Your task to perform on an android device: uninstall "Microsoft Excel" Image 0: 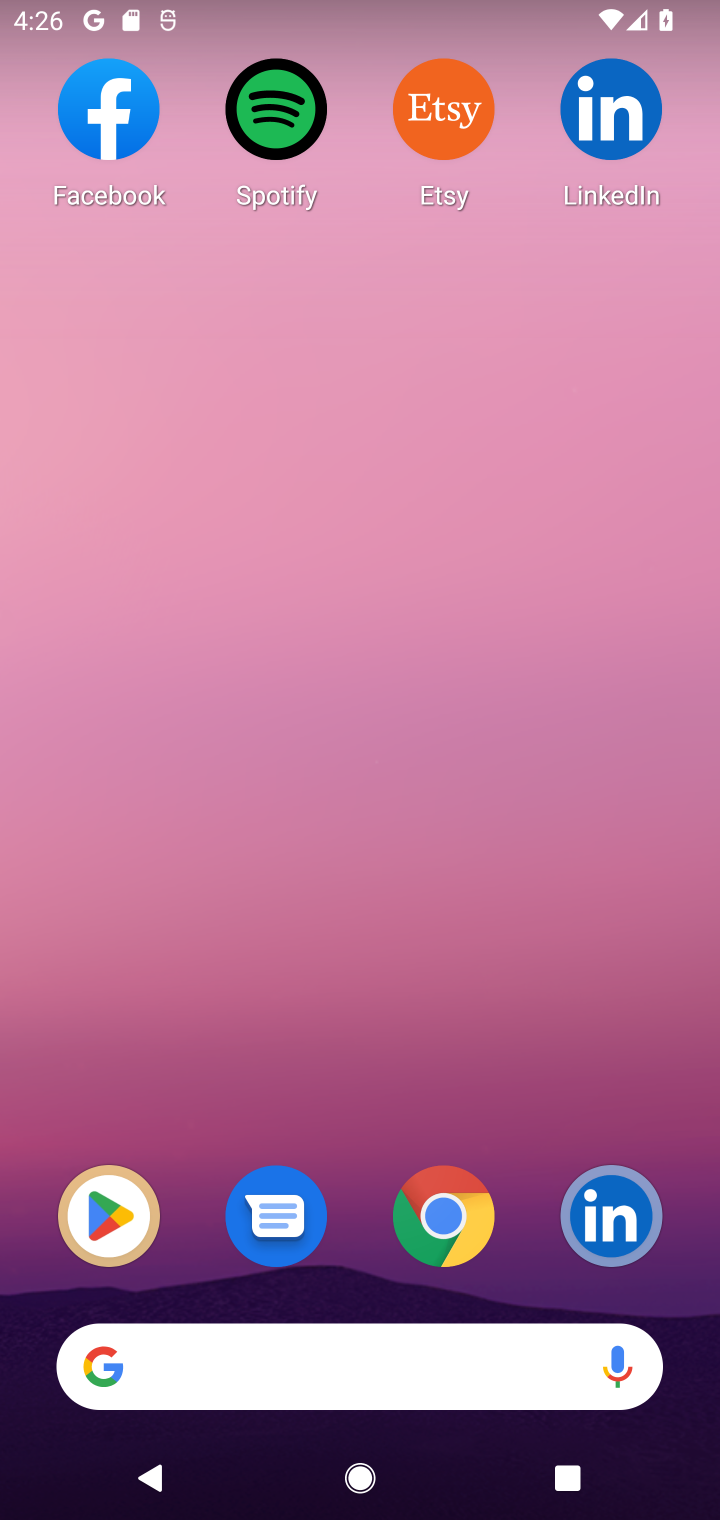
Step 0: click (125, 1211)
Your task to perform on an android device: uninstall "Microsoft Excel" Image 1: 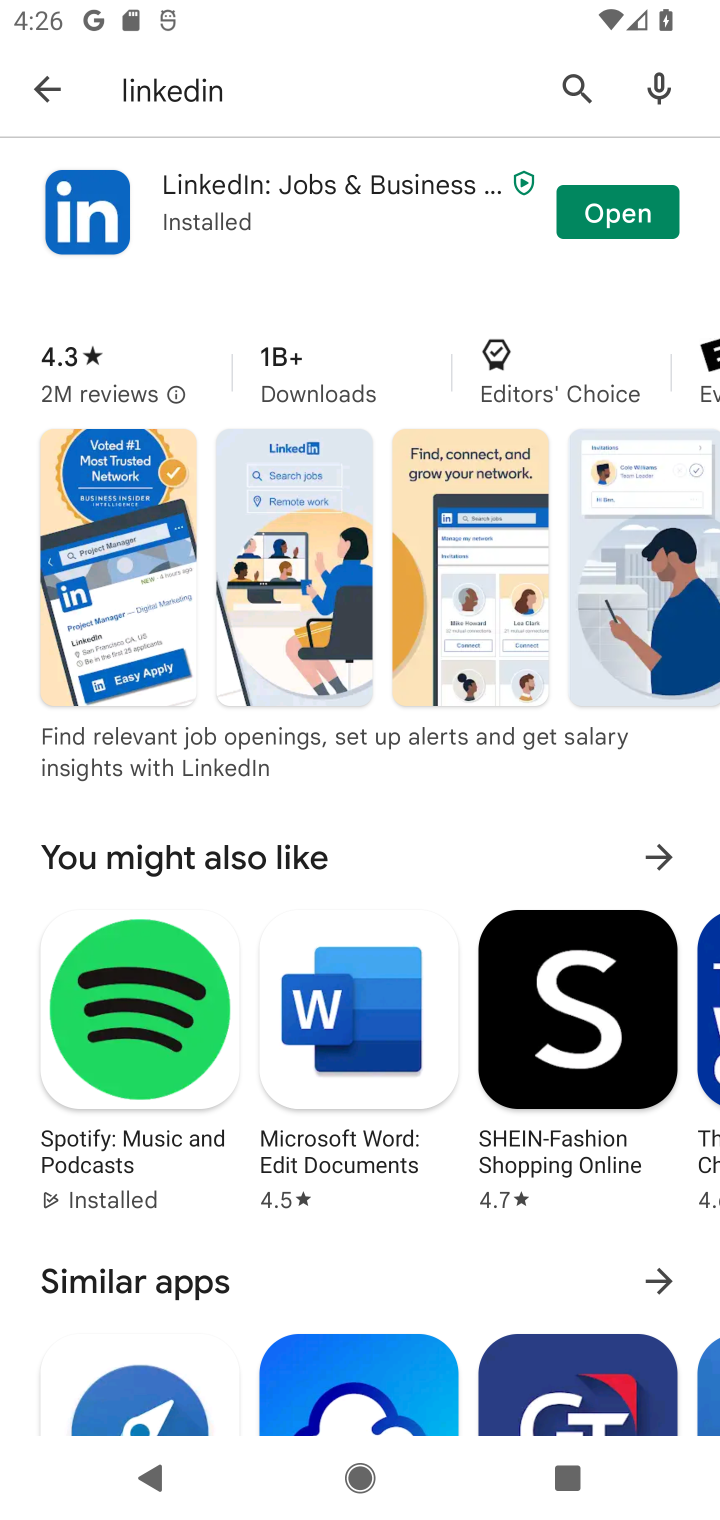
Step 1: click (591, 90)
Your task to perform on an android device: uninstall "Microsoft Excel" Image 2: 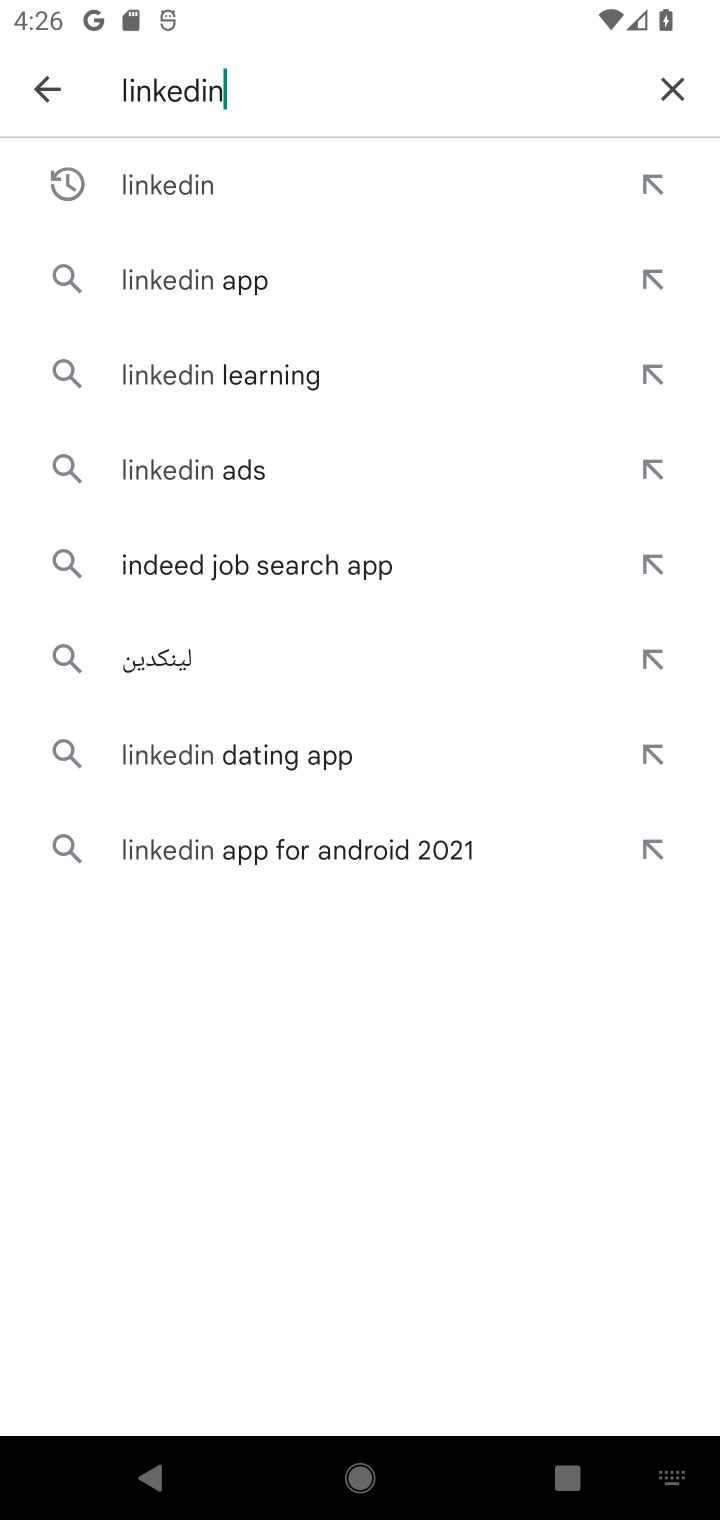
Step 2: click (671, 87)
Your task to perform on an android device: uninstall "Microsoft Excel" Image 3: 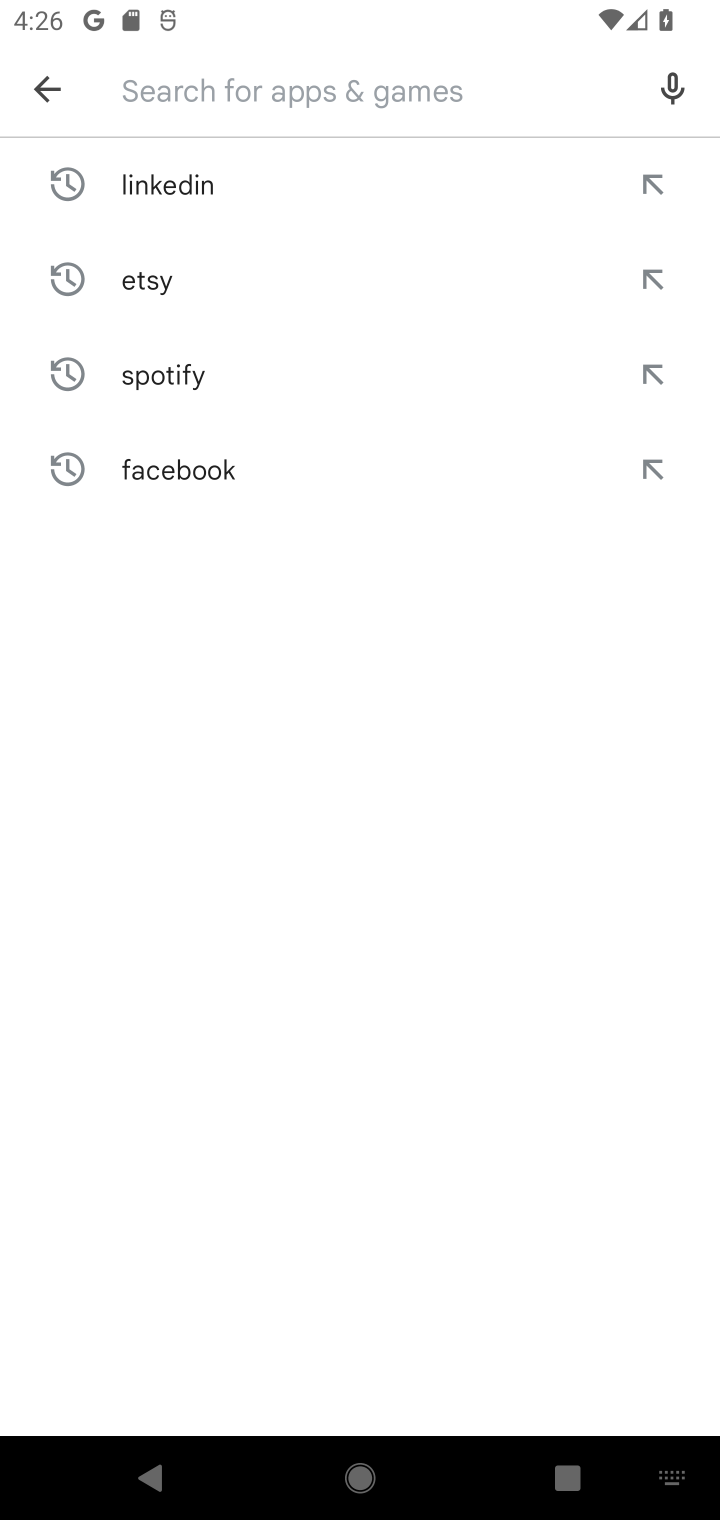
Step 3: type "microsoft excel"
Your task to perform on an android device: uninstall "Microsoft Excel" Image 4: 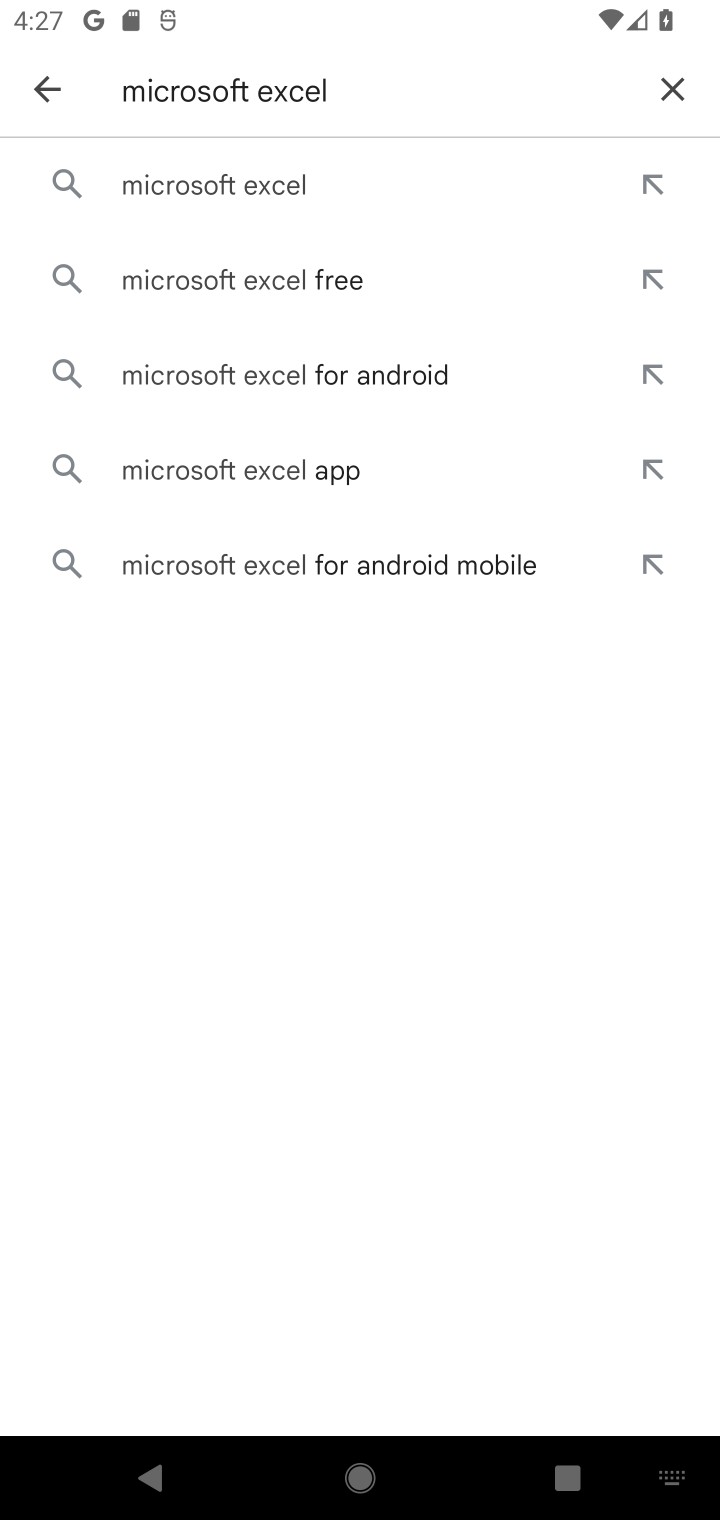
Step 4: click (399, 184)
Your task to perform on an android device: uninstall "Microsoft Excel" Image 5: 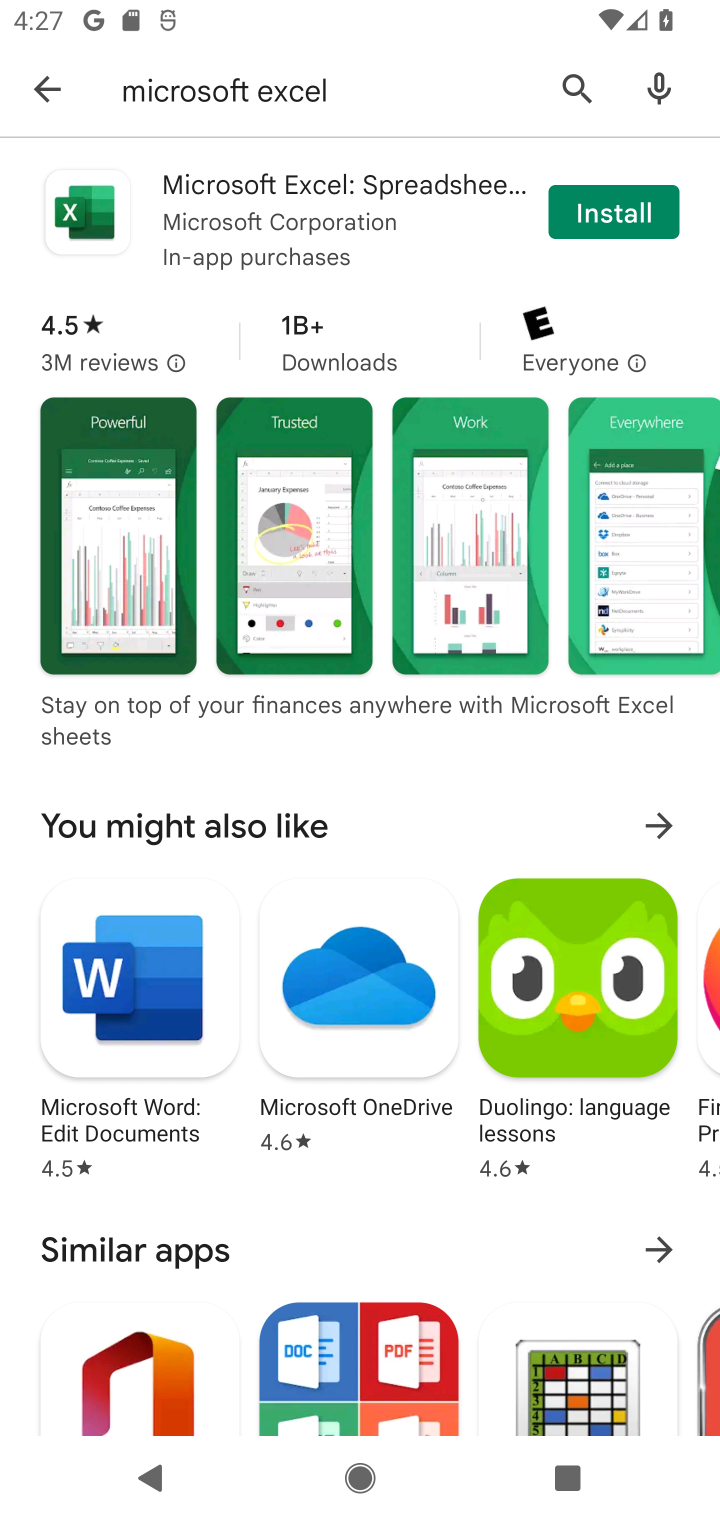
Step 5: click (604, 224)
Your task to perform on an android device: uninstall "Microsoft Excel" Image 6: 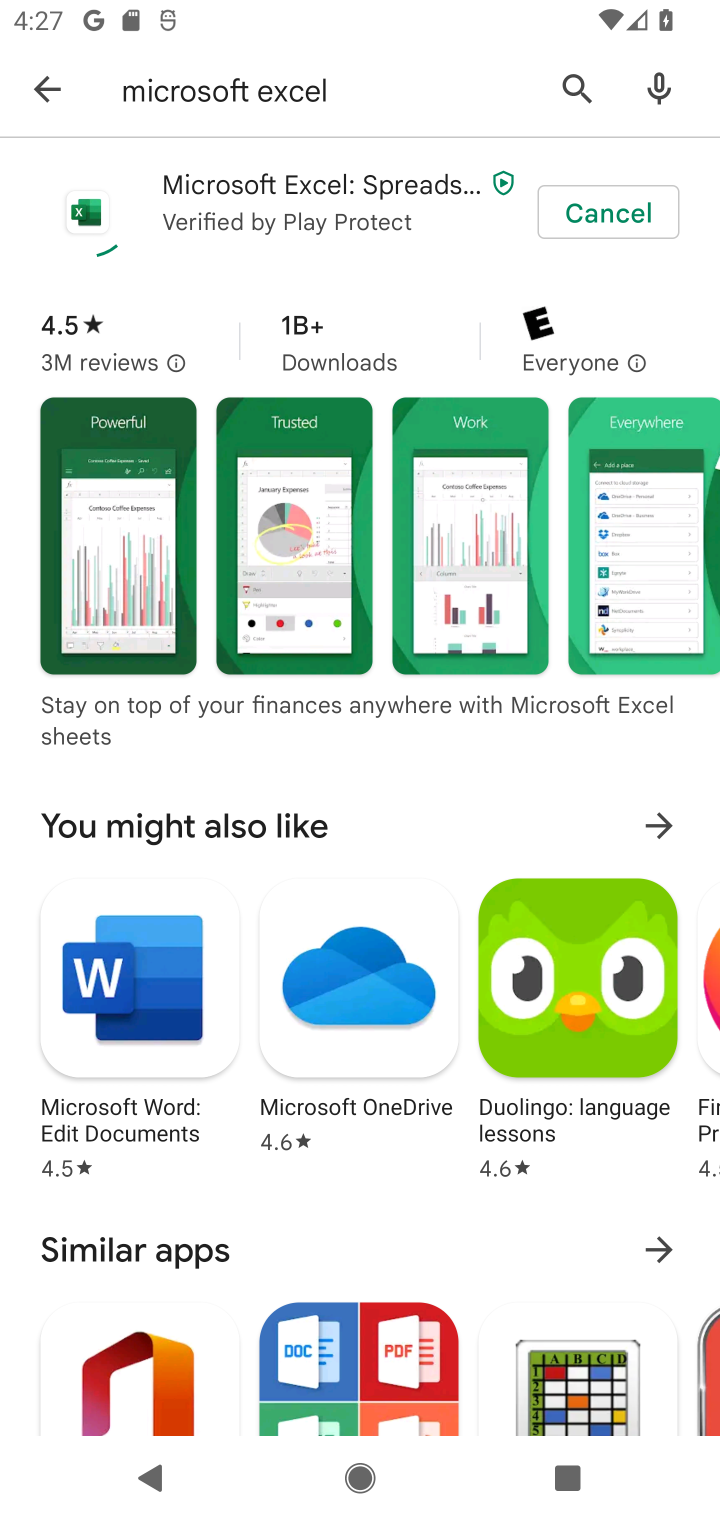
Step 6: task complete